Your task to perform on an android device: When is my next meeting? Image 0: 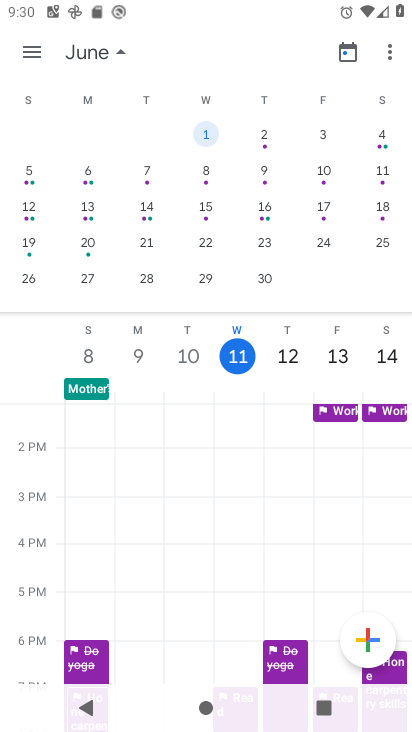
Step 0: drag from (31, 600) to (34, 332)
Your task to perform on an android device: When is my next meeting? Image 1: 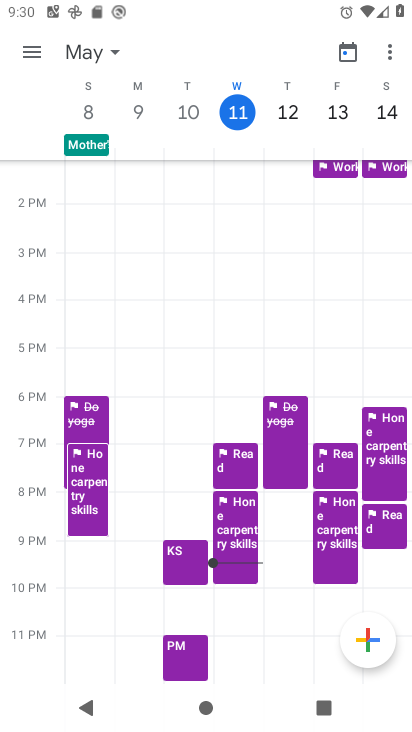
Step 1: task complete